Your task to perform on an android device: Open Google Chrome Image 0: 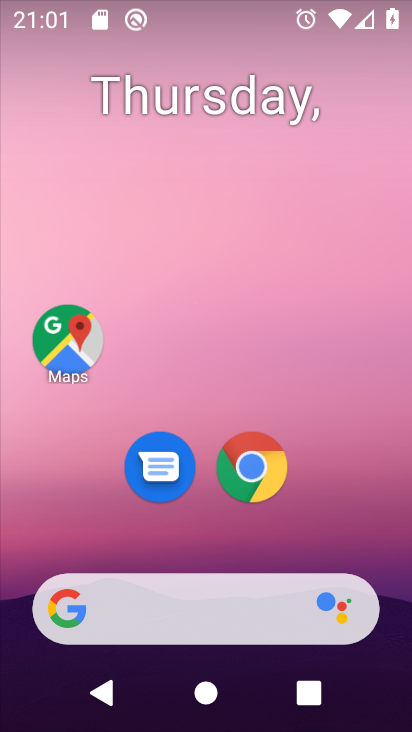
Step 0: drag from (326, 490) to (330, 241)
Your task to perform on an android device: Open Google Chrome Image 1: 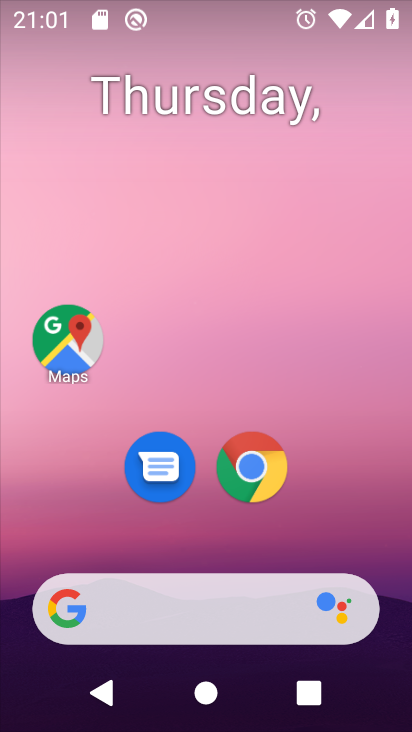
Step 1: drag from (288, 555) to (275, 85)
Your task to perform on an android device: Open Google Chrome Image 2: 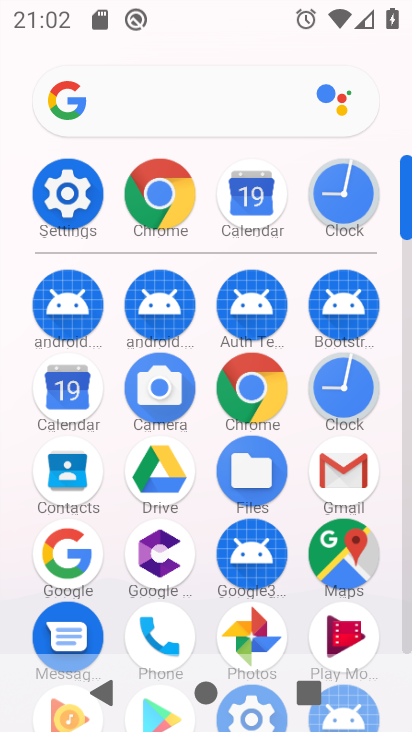
Step 2: click (68, 548)
Your task to perform on an android device: Open Google Chrome Image 3: 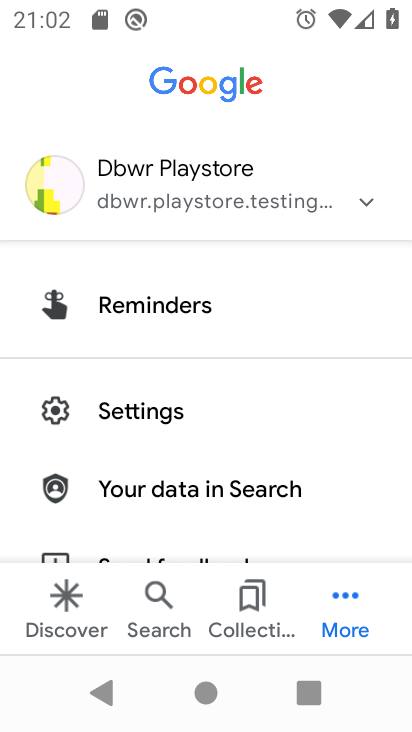
Step 3: task complete